Your task to perform on an android device: Open battery settings Image 0: 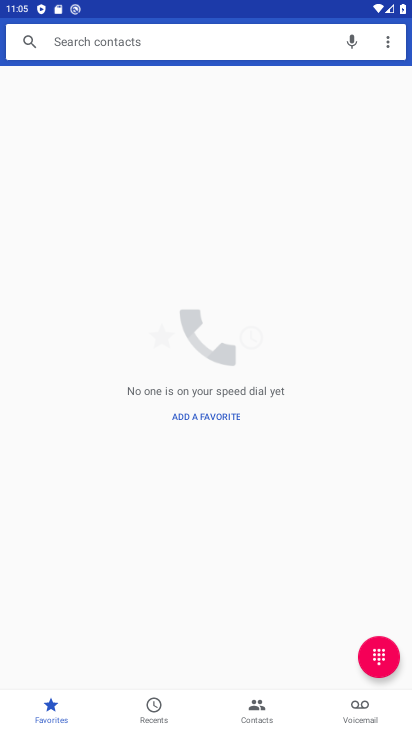
Step 0: press home button
Your task to perform on an android device: Open battery settings Image 1: 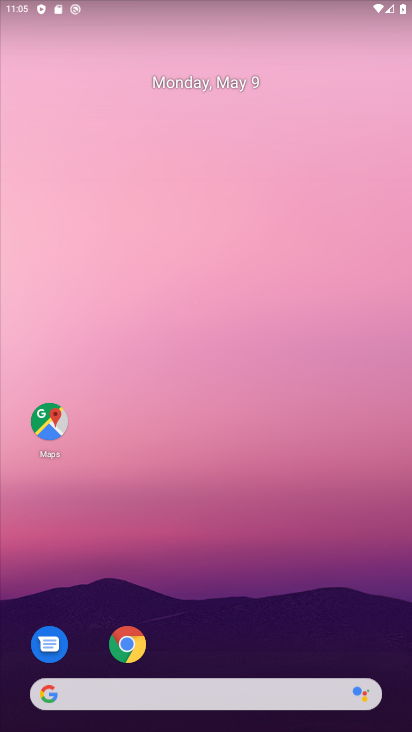
Step 1: drag from (259, 624) to (246, 125)
Your task to perform on an android device: Open battery settings Image 2: 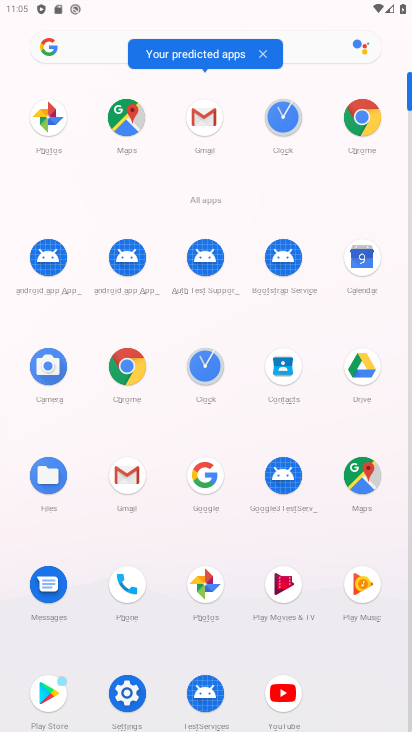
Step 2: click (114, 705)
Your task to perform on an android device: Open battery settings Image 3: 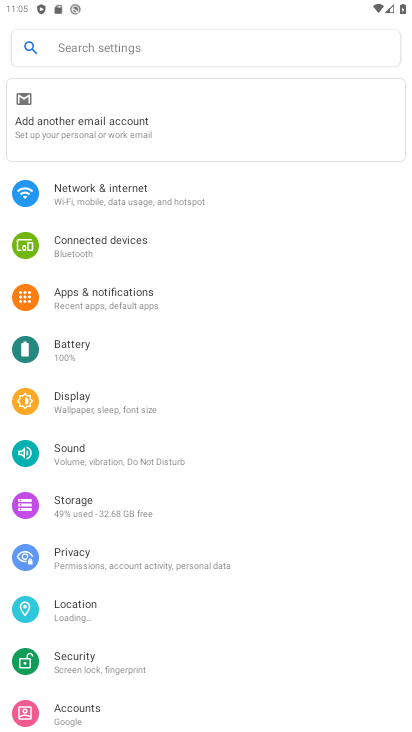
Step 3: click (120, 357)
Your task to perform on an android device: Open battery settings Image 4: 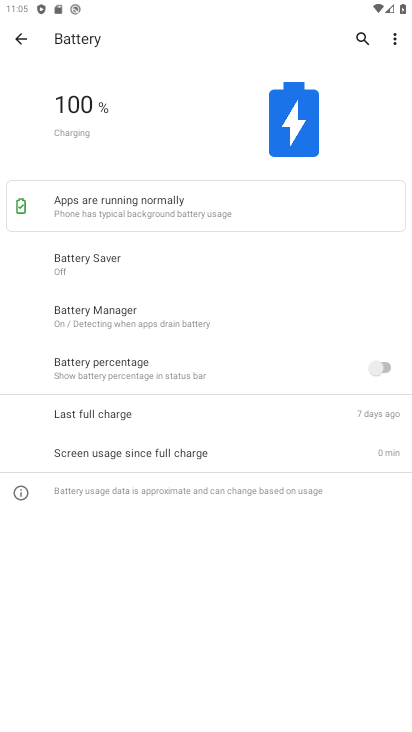
Step 4: task complete